Your task to perform on an android device: Turn on the flashlight Image 0: 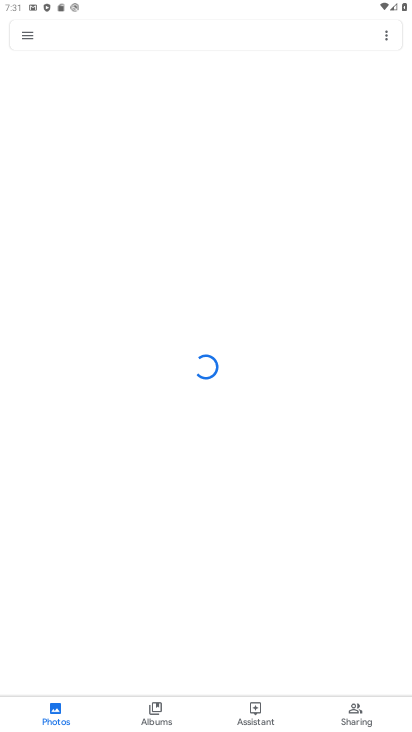
Step 0: press home button
Your task to perform on an android device: Turn on the flashlight Image 1: 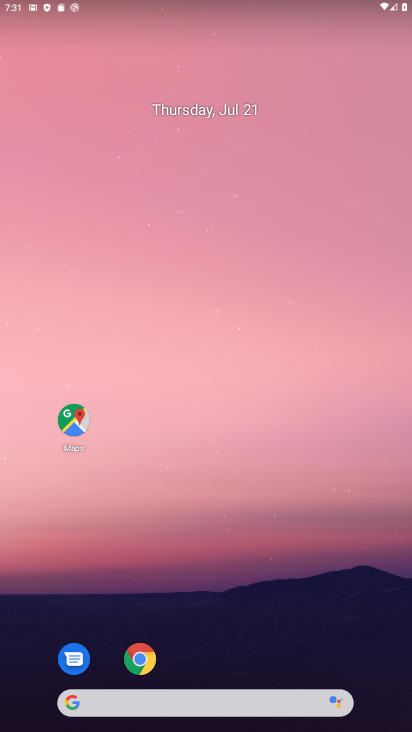
Step 1: drag from (230, 567) to (155, 36)
Your task to perform on an android device: Turn on the flashlight Image 2: 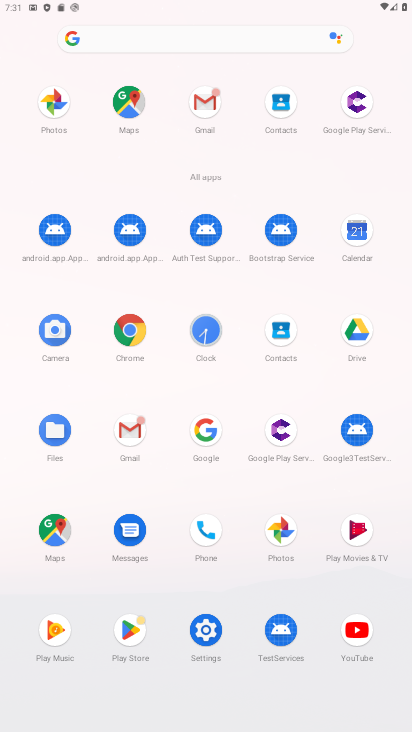
Step 2: click (205, 632)
Your task to perform on an android device: Turn on the flashlight Image 3: 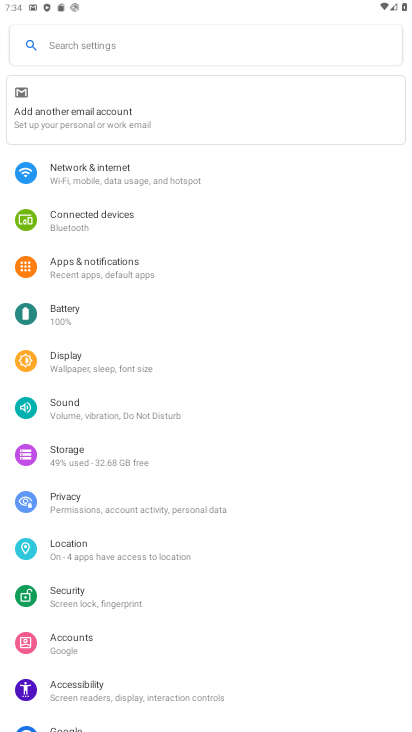
Step 3: task complete